Your task to perform on an android device: open sync settings in chrome Image 0: 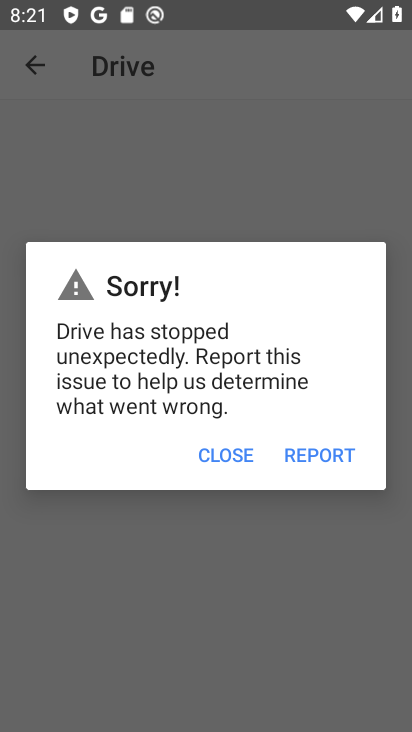
Step 0: click (231, 454)
Your task to perform on an android device: open sync settings in chrome Image 1: 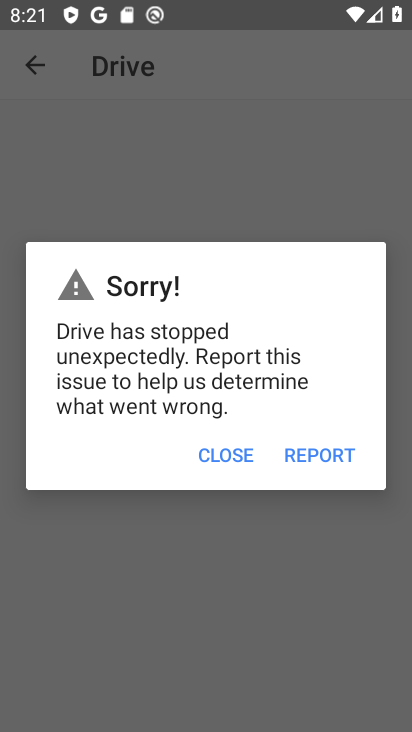
Step 1: click (231, 454)
Your task to perform on an android device: open sync settings in chrome Image 2: 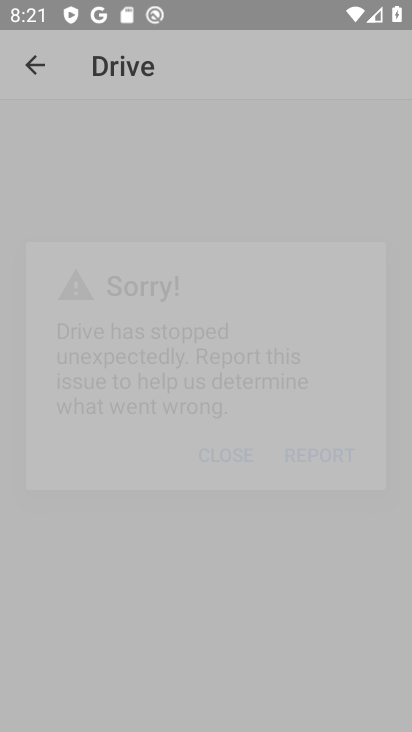
Step 2: click (231, 454)
Your task to perform on an android device: open sync settings in chrome Image 3: 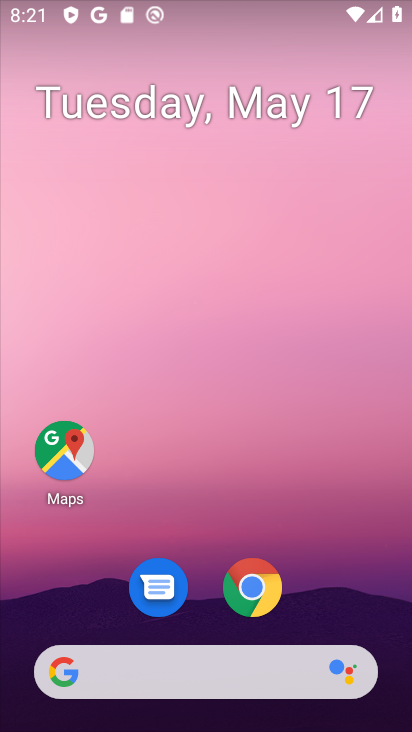
Step 3: drag from (336, 568) to (162, 128)
Your task to perform on an android device: open sync settings in chrome Image 4: 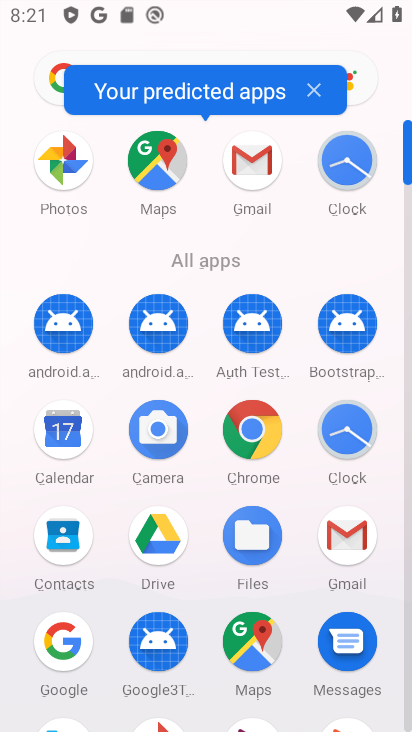
Step 4: click (253, 420)
Your task to perform on an android device: open sync settings in chrome Image 5: 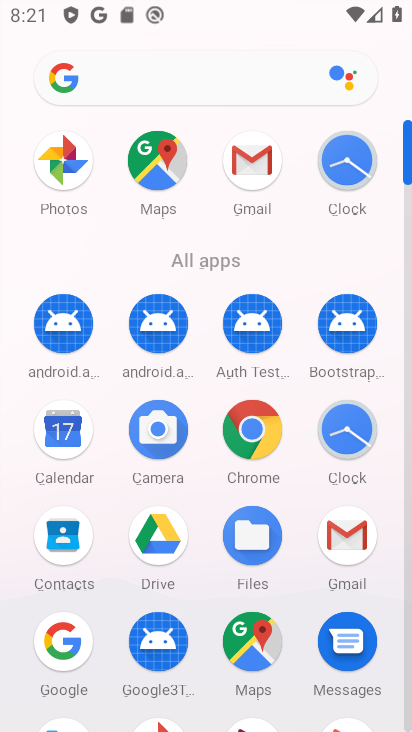
Step 5: click (254, 421)
Your task to perform on an android device: open sync settings in chrome Image 6: 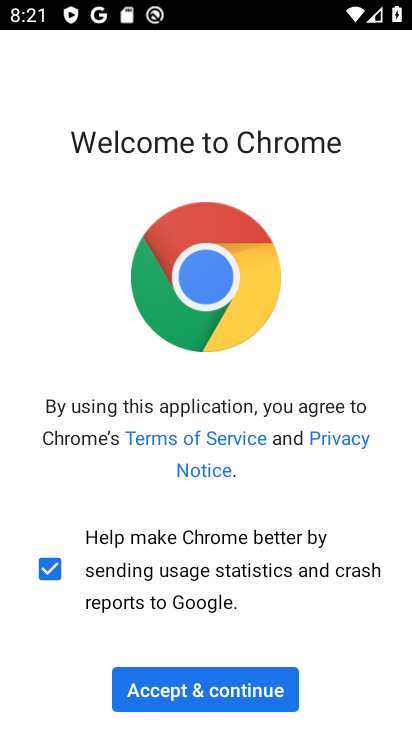
Step 6: click (221, 682)
Your task to perform on an android device: open sync settings in chrome Image 7: 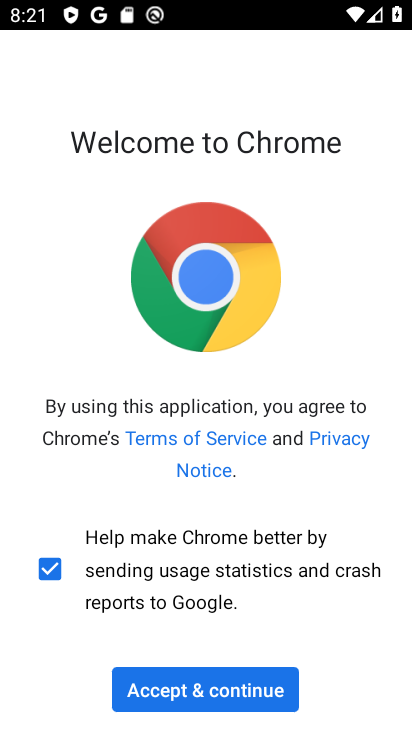
Step 7: click (220, 682)
Your task to perform on an android device: open sync settings in chrome Image 8: 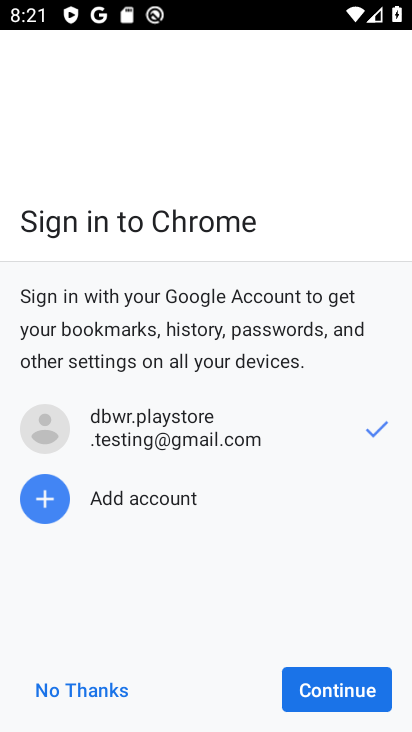
Step 8: click (327, 684)
Your task to perform on an android device: open sync settings in chrome Image 9: 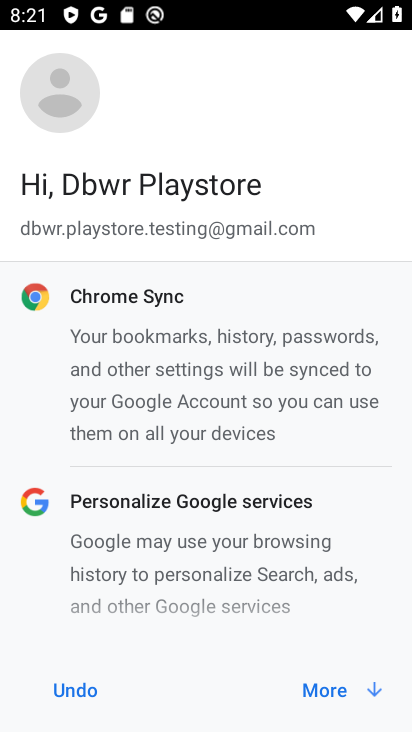
Step 9: click (354, 684)
Your task to perform on an android device: open sync settings in chrome Image 10: 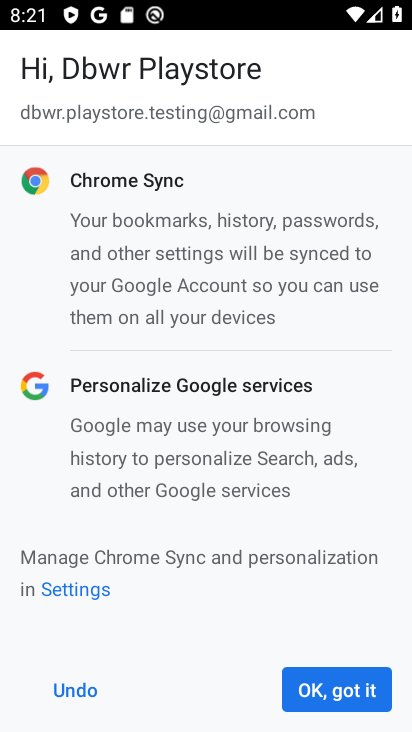
Step 10: click (353, 685)
Your task to perform on an android device: open sync settings in chrome Image 11: 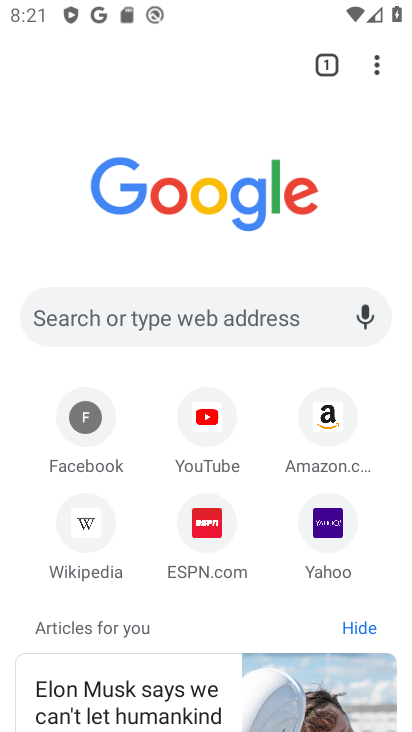
Step 11: drag from (374, 64) to (148, 536)
Your task to perform on an android device: open sync settings in chrome Image 12: 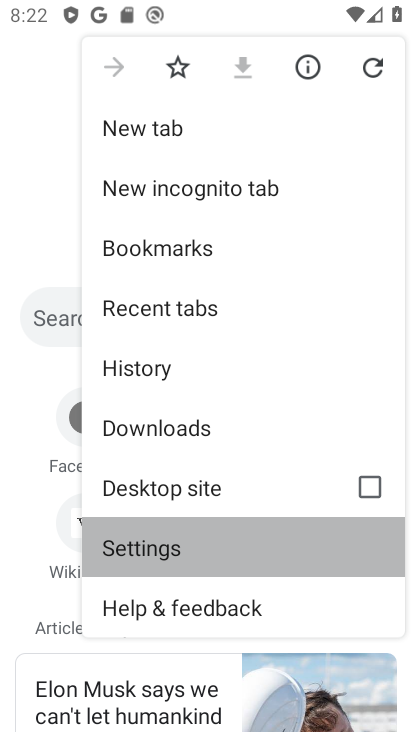
Step 12: click (148, 536)
Your task to perform on an android device: open sync settings in chrome Image 13: 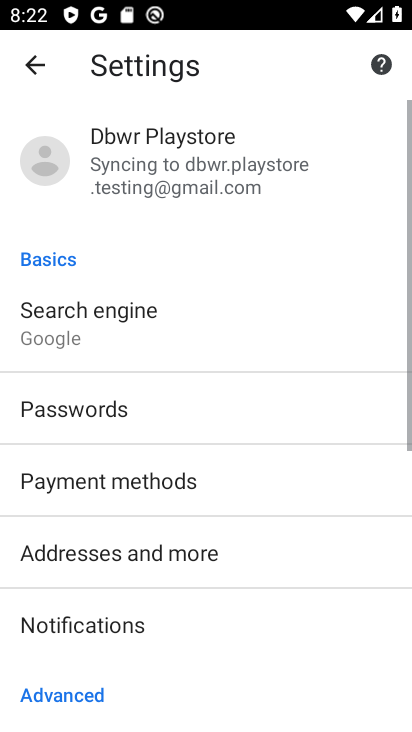
Step 13: drag from (153, 582) to (189, 210)
Your task to perform on an android device: open sync settings in chrome Image 14: 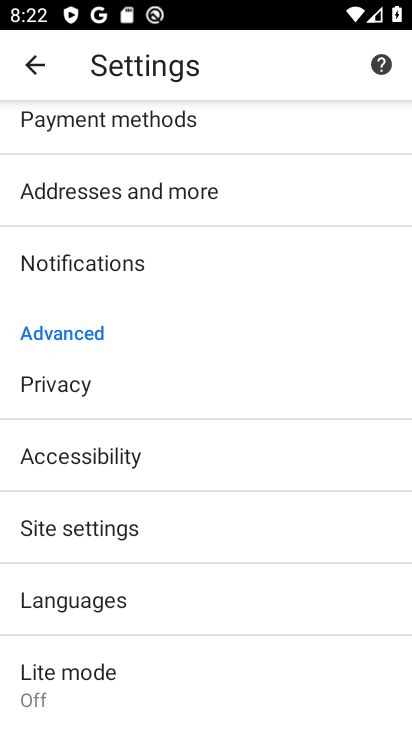
Step 14: click (81, 528)
Your task to perform on an android device: open sync settings in chrome Image 15: 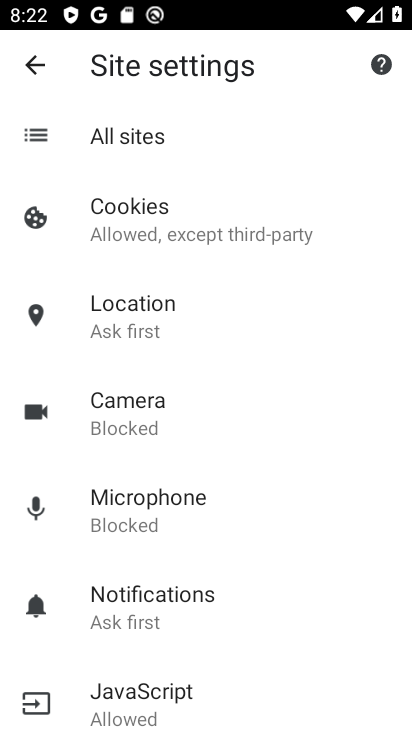
Step 15: drag from (173, 620) to (95, 78)
Your task to perform on an android device: open sync settings in chrome Image 16: 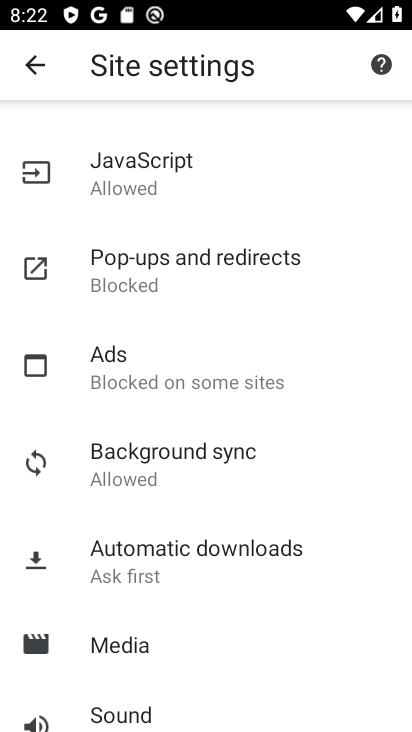
Step 16: click (131, 461)
Your task to perform on an android device: open sync settings in chrome Image 17: 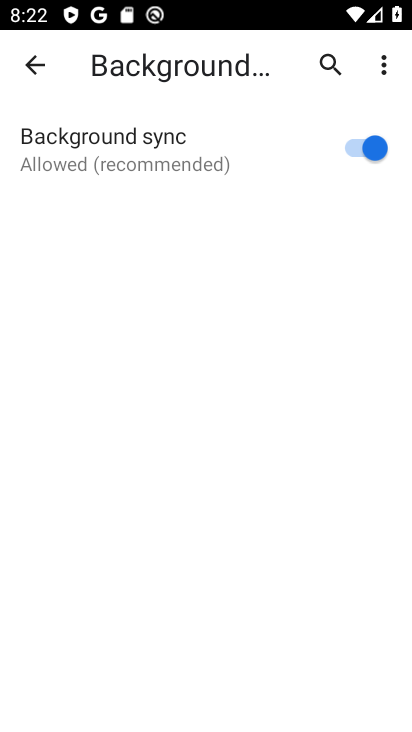
Step 17: task complete